Your task to perform on an android device: Search for vegetarian restaurants on Maps Image 0: 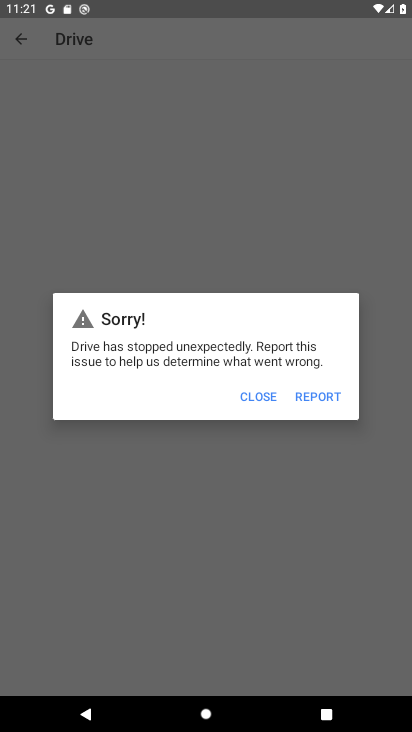
Step 0: press home button
Your task to perform on an android device: Search for vegetarian restaurants on Maps Image 1: 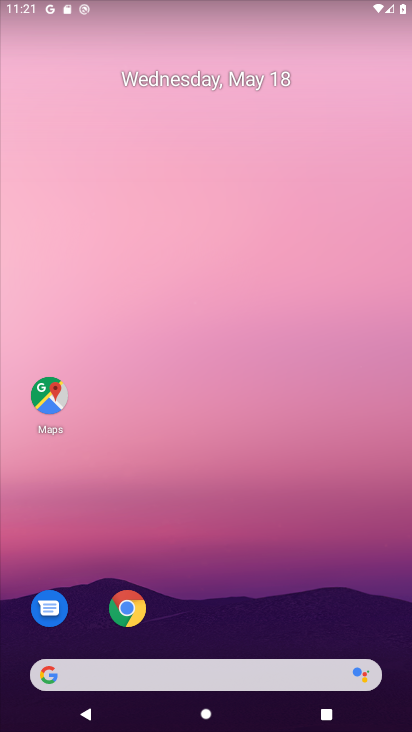
Step 1: click (52, 396)
Your task to perform on an android device: Search for vegetarian restaurants on Maps Image 2: 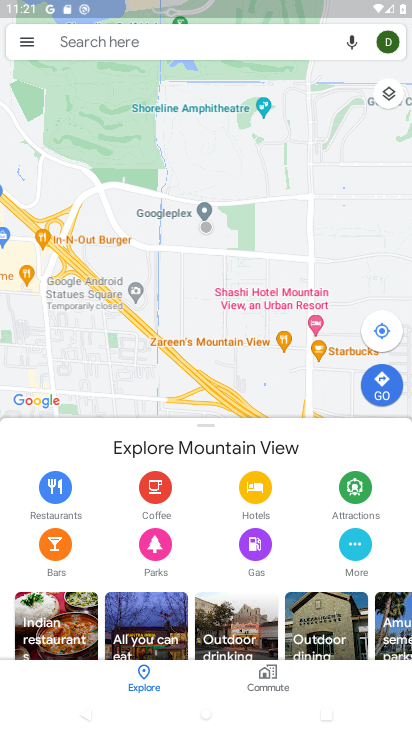
Step 2: click (202, 36)
Your task to perform on an android device: Search for vegetarian restaurants on Maps Image 3: 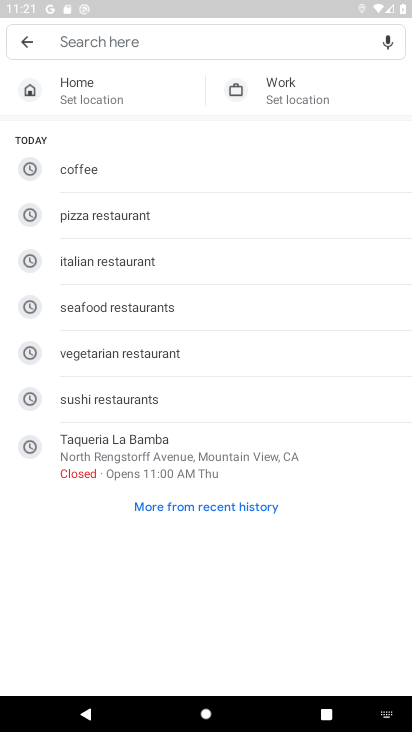
Step 3: click (183, 353)
Your task to perform on an android device: Search for vegetarian restaurants on Maps Image 4: 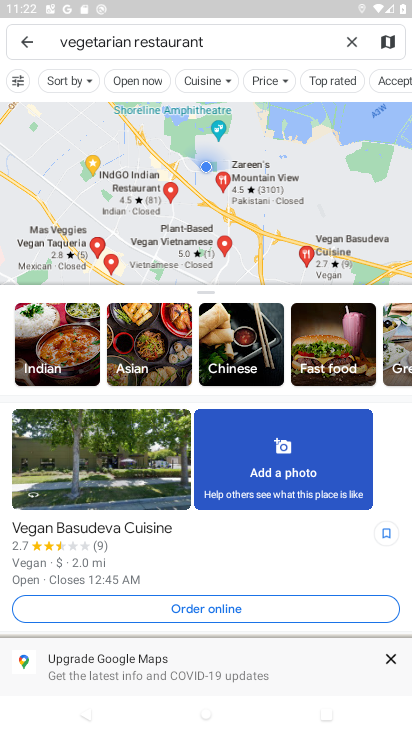
Step 4: task complete